Your task to perform on an android device: Do I have any events tomorrow? Image 0: 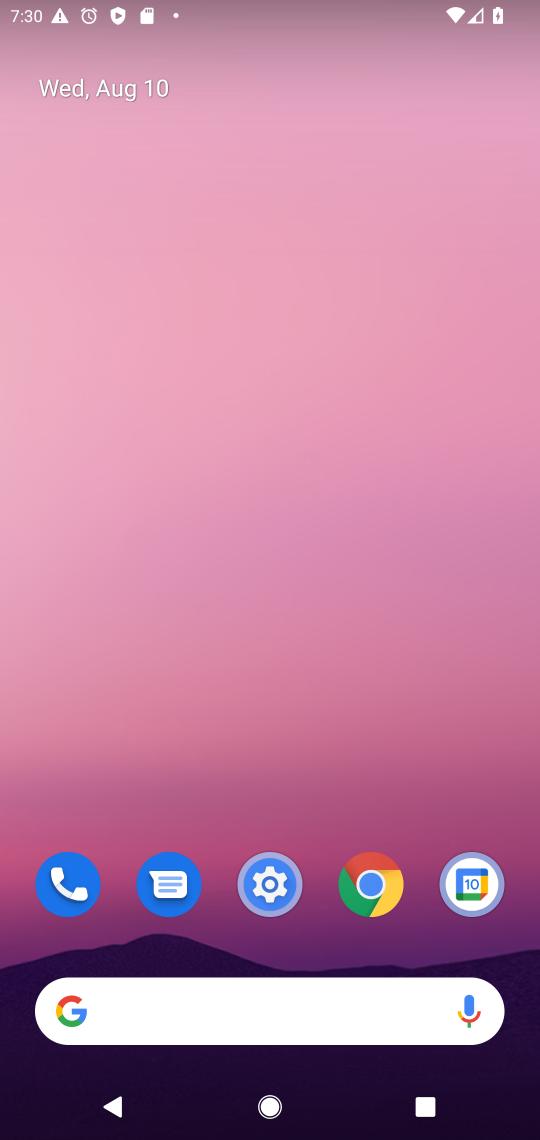
Step 0: drag from (42, 1100) to (271, 347)
Your task to perform on an android device: Do I have any events tomorrow? Image 1: 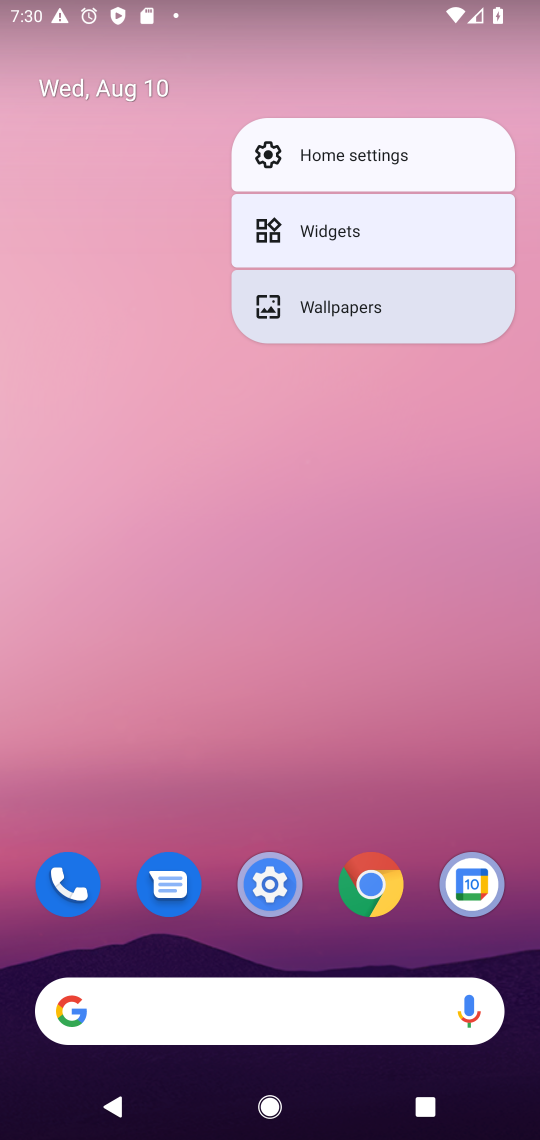
Step 1: task complete